Your task to perform on an android device: turn off improve location accuracy Image 0: 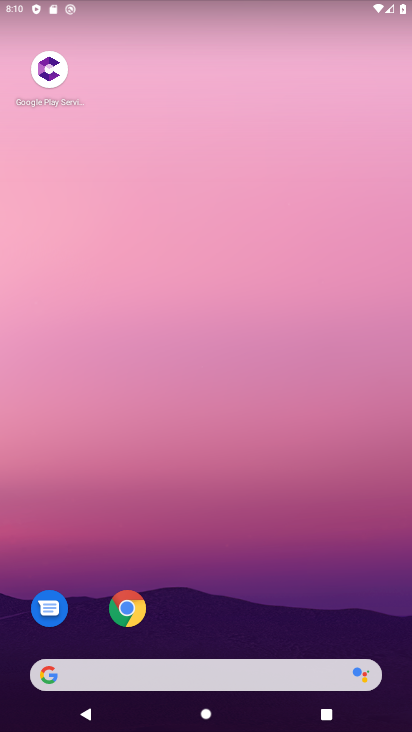
Step 0: drag from (291, 607) to (311, 317)
Your task to perform on an android device: turn off improve location accuracy Image 1: 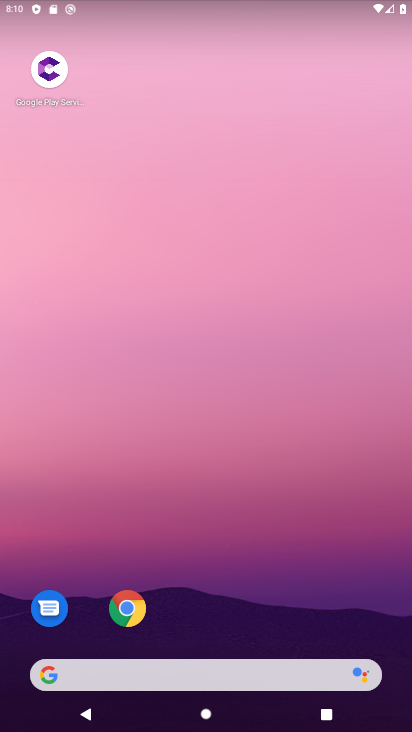
Step 1: drag from (302, 583) to (220, 125)
Your task to perform on an android device: turn off improve location accuracy Image 2: 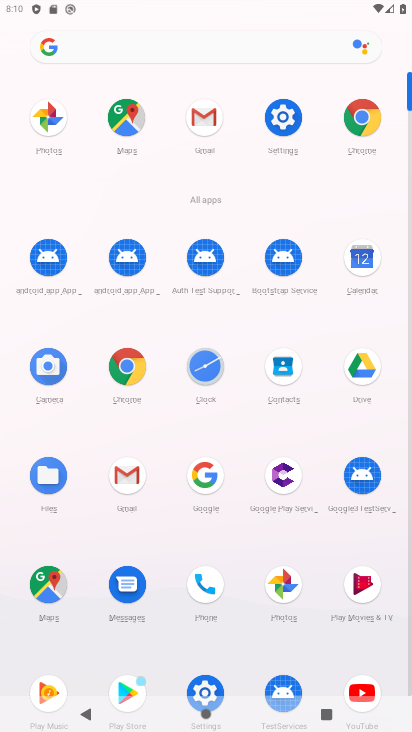
Step 2: click (276, 126)
Your task to perform on an android device: turn off improve location accuracy Image 3: 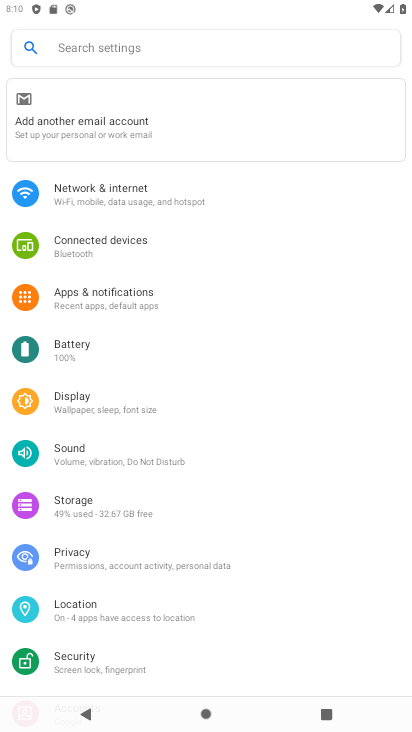
Step 3: click (124, 609)
Your task to perform on an android device: turn off improve location accuracy Image 4: 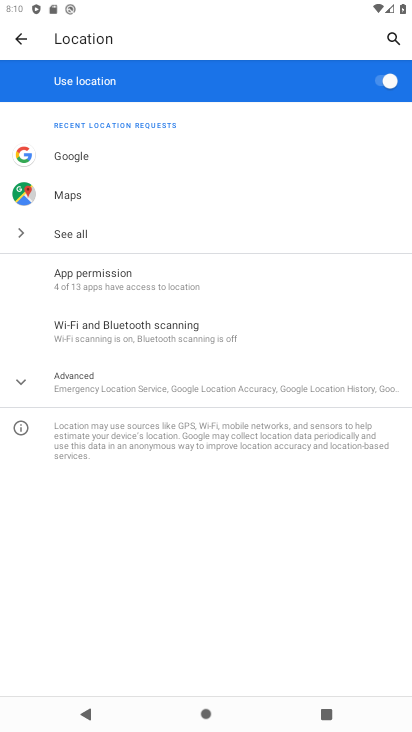
Step 4: click (134, 379)
Your task to perform on an android device: turn off improve location accuracy Image 5: 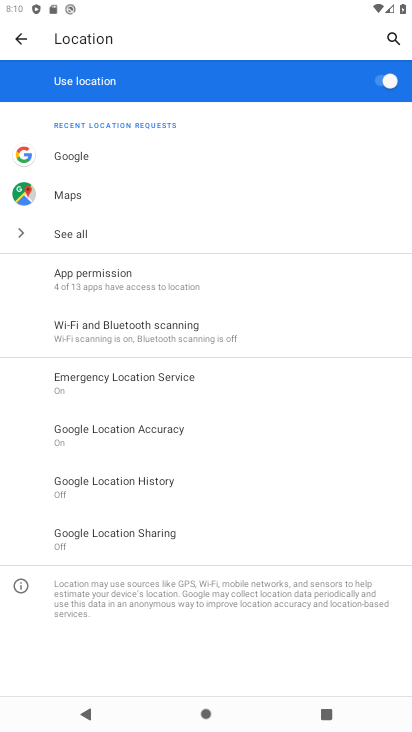
Step 5: click (126, 418)
Your task to perform on an android device: turn off improve location accuracy Image 6: 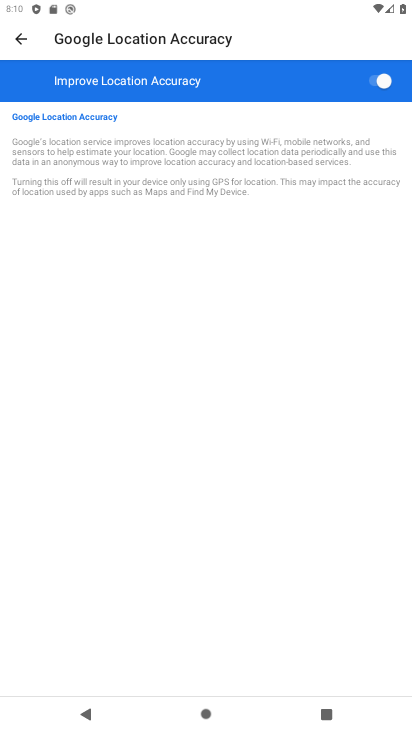
Step 6: click (388, 92)
Your task to perform on an android device: turn off improve location accuracy Image 7: 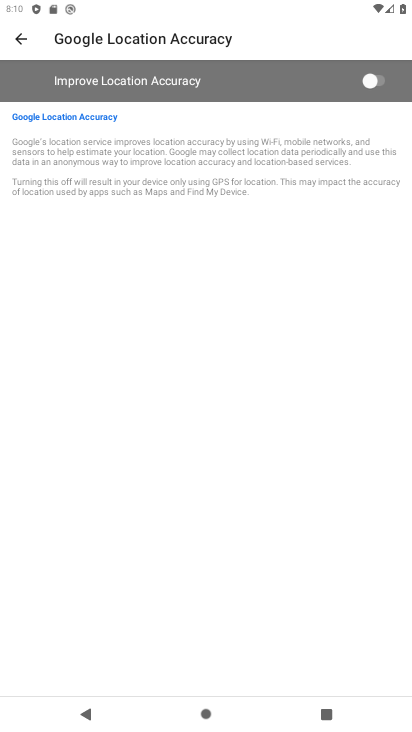
Step 7: task complete